Your task to perform on an android device: Open the Play Movies app and select the watchlist tab. Image 0: 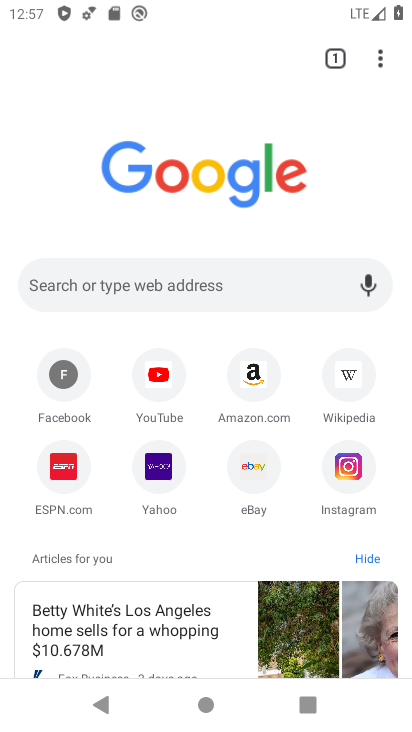
Step 0: press home button
Your task to perform on an android device: Open the Play Movies app and select the watchlist tab. Image 1: 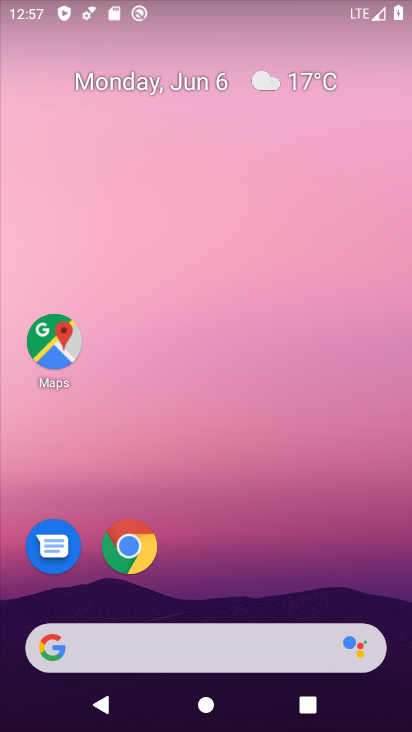
Step 1: drag from (387, 458) to (335, 79)
Your task to perform on an android device: Open the Play Movies app and select the watchlist tab. Image 2: 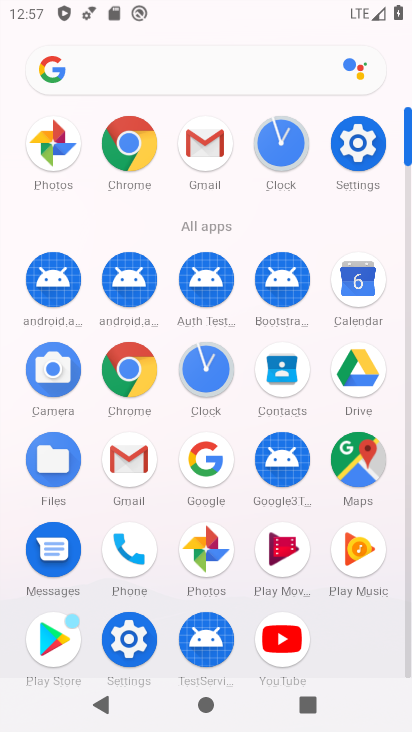
Step 2: click (284, 555)
Your task to perform on an android device: Open the Play Movies app and select the watchlist tab. Image 3: 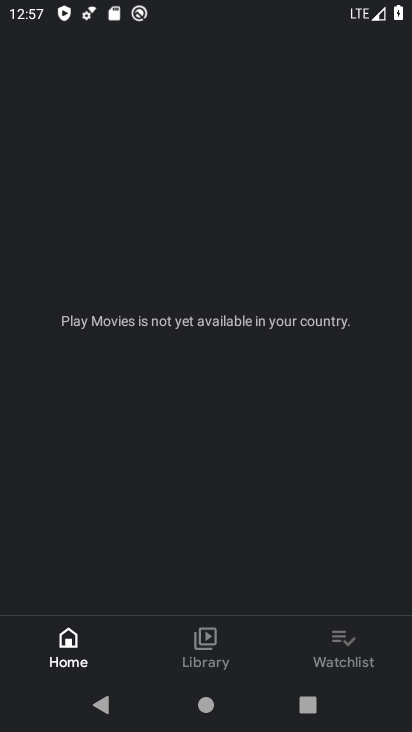
Step 3: click (324, 655)
Your task to perform on an android device: Open the Play Movies app and select the watchlist tab. Image 4: 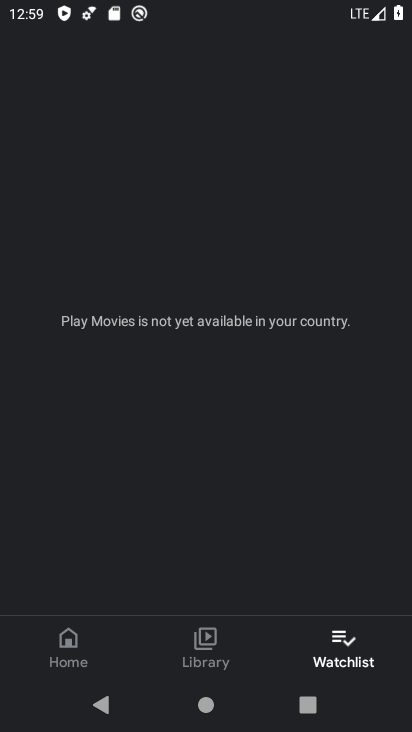
Step 4: task complete